Your task to perform on an android device: Open privacy settings Image 0: 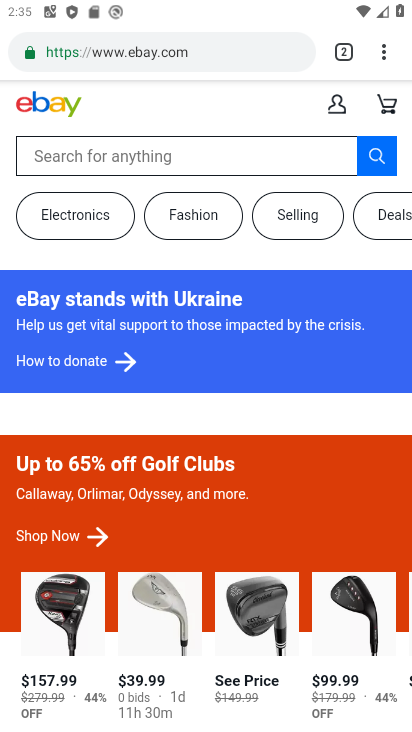
Step 0: press home button
Your task to perform on an android device: Open privacy settings Image 1: 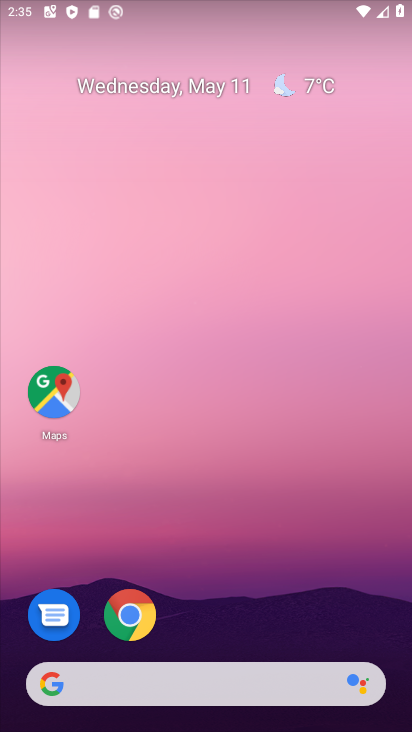
Step 1: drag from (254, 608) to (265, 56)
Your task to perform on an android device: Open privacy settings Image 2: 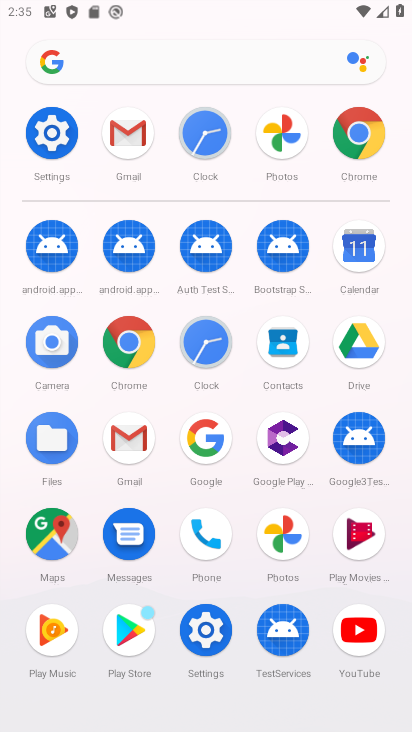
Step 2: click (72, 117)
Your task to perform on an android device: Open privacy settings Image 3: 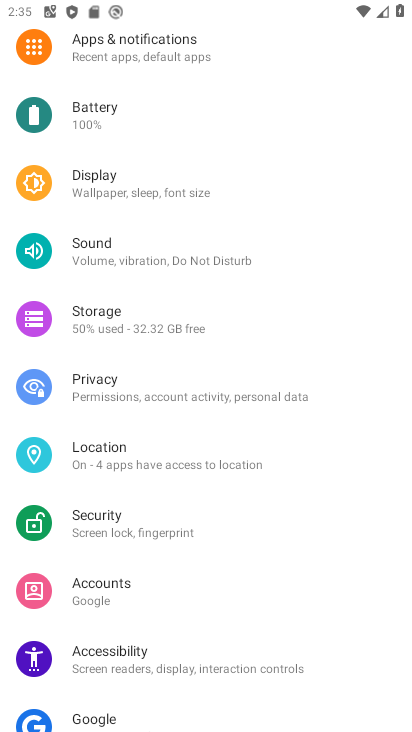
Step 3: click (201, 387)
Your task to perform on an android device: Open privacy settings Image 4: 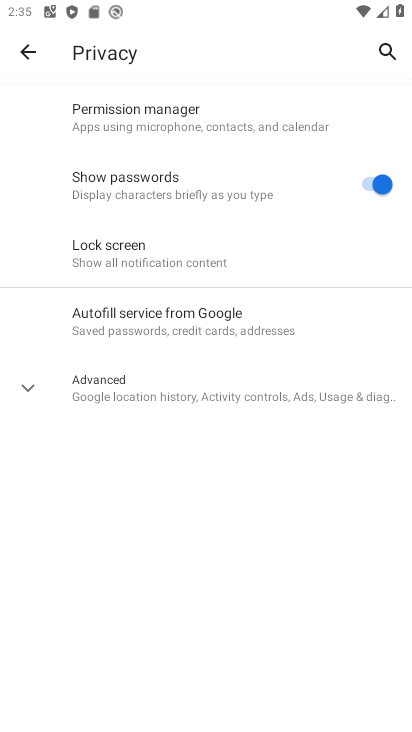
Step 4: task complete